Your task to perform on an android device: open a bookmark in the chrome app Image 0: 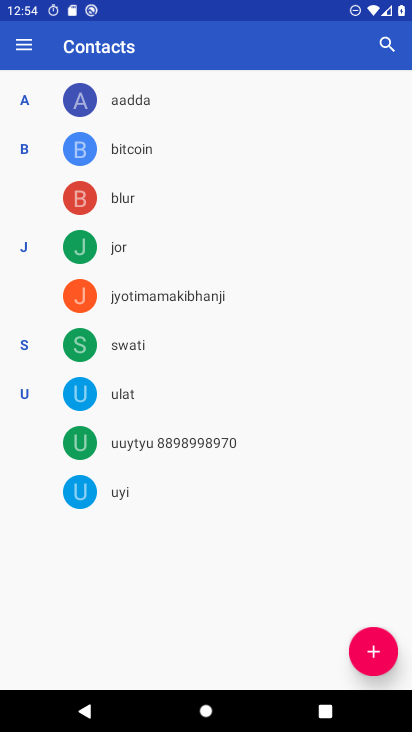
Step 0: press home button
Your task to perform on an android device: open a bookmark in the chrome app Image 1: 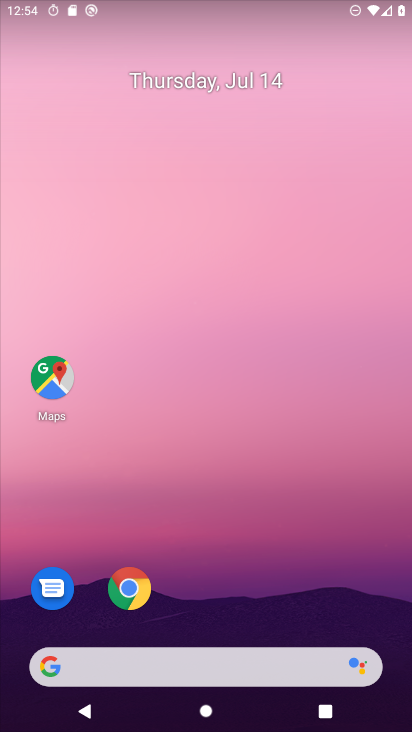
Step 1: click (126, 590)
Your task to perform on an android device: open a bookmark in the chrome app Image 2: 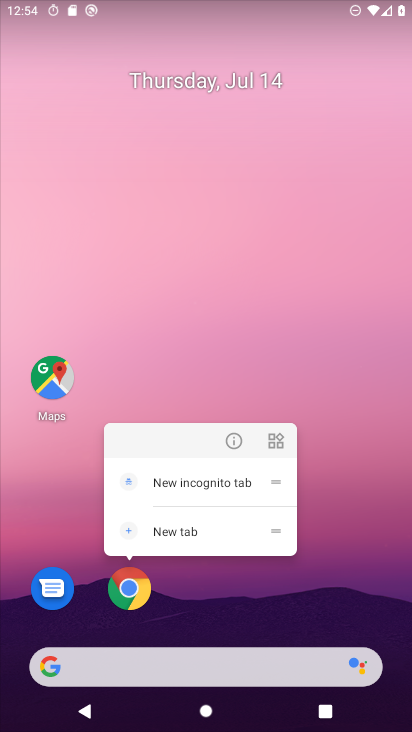
Step 2: click (125, 594)
Your task to perform on an android device: open a bookmark in the chrome app Image 3: 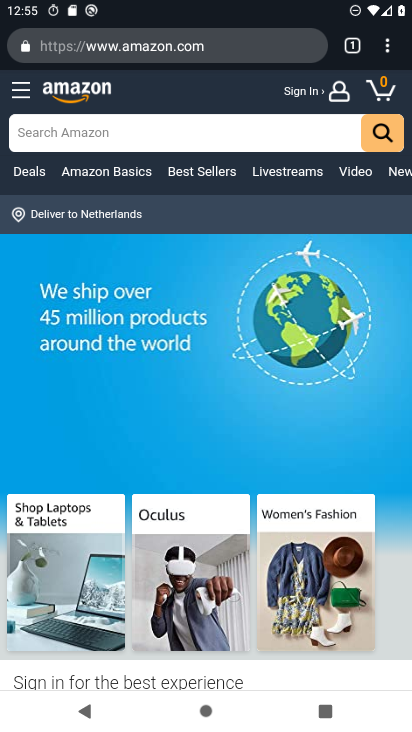
Step 3: task complete